Your task to perform on an android device: search for starred emails in the gmail app Image 0: 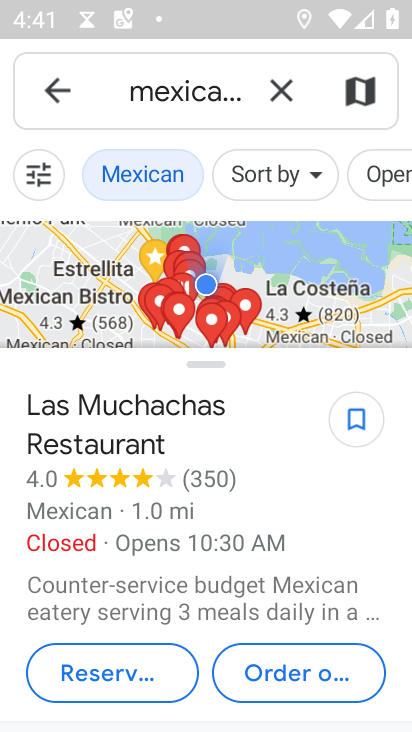
Step 0: press home button
Your task to perform on an android device: search for starred emails in the gmail app Image 1: 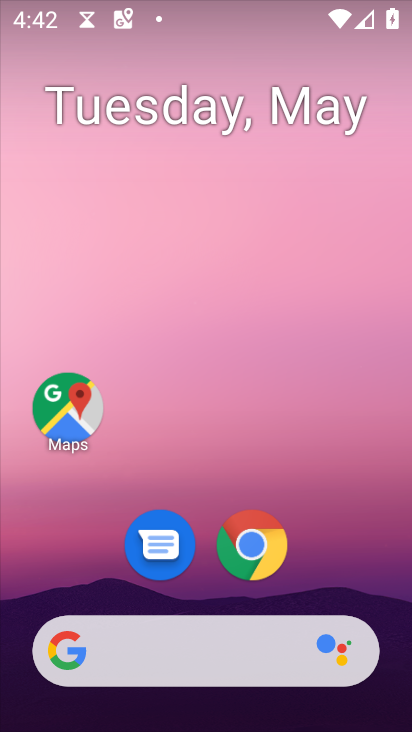
Step 1: drag from (340, 575) to (292, 1)
Your task to perform on an android device: search for starred emails in the gmail app Image 2: 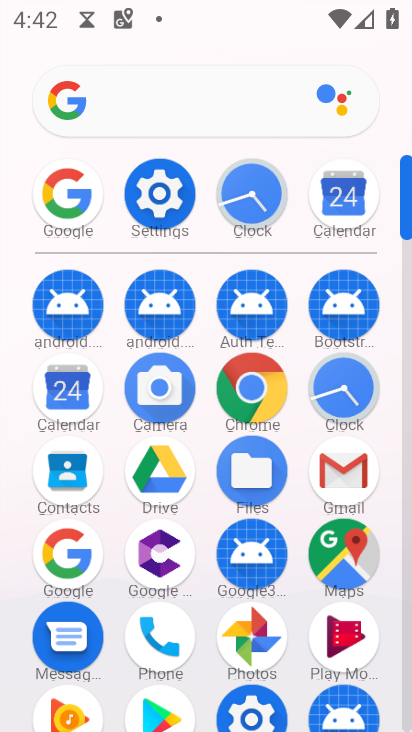
Step 2: click (346, 471)
Your task to perform on an android device: search for starred emails in the gmail app Image 3: 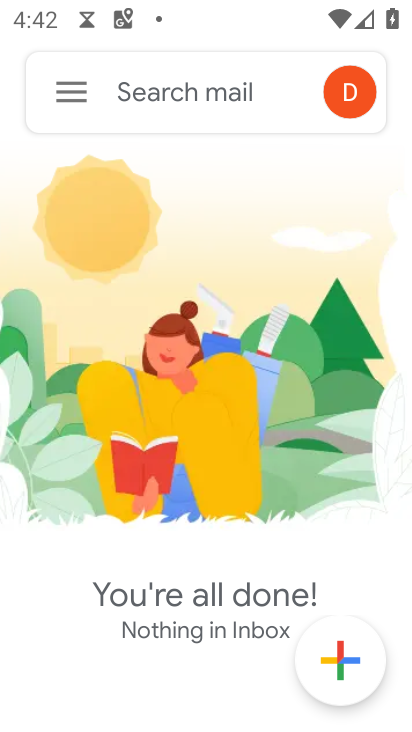
Step 3: click (72, 98)
Your task to perform on an android device: search for starred emails in the gmail app Image 4: 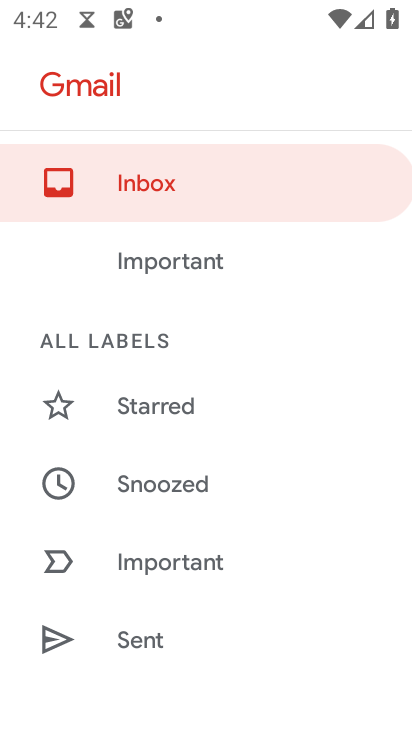
Step 4: click (105, 176)
Your task to perform on an android device: search for starred emails in the gmail app Image 5: 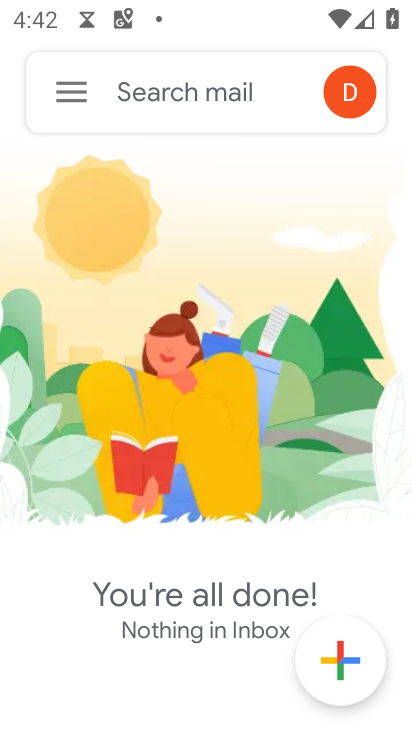
Step 5: click (70, 92)
Your task to perform on an android device: search for starred emails in the gmail app Image 6: 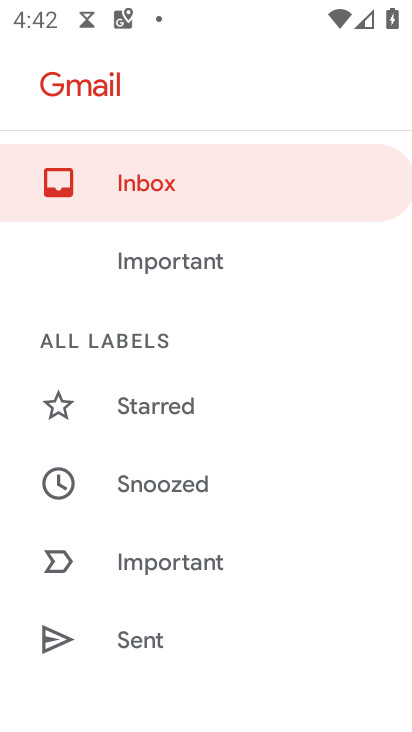
Step 6: click (143, 400)
Your task to perform on an android device: search for starred emails in the gmail app Image 7: 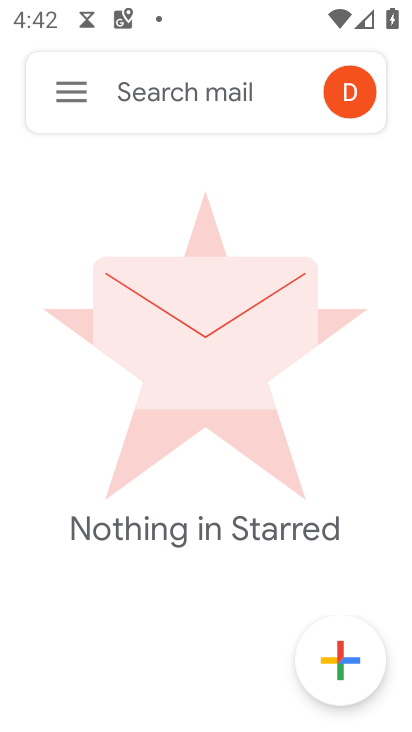
Step 7: task complete